Your task to perform on an android device: turn off priority inbox in the gmail app Image 0: 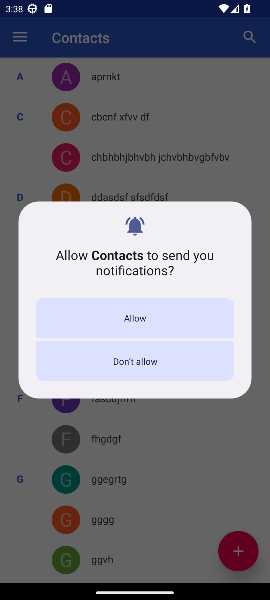
Step 0: press home button
Your task to perform on an android device: turn off priority inbox in the gmail app Image 1: 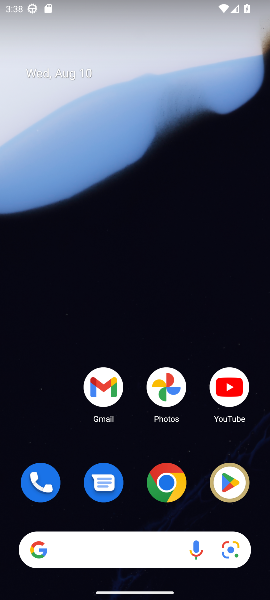
Step 1: drag from (132, 489) to (185, 99)
Your task to perform on an android device: turn off priority inbox in the gmail app Image 2: 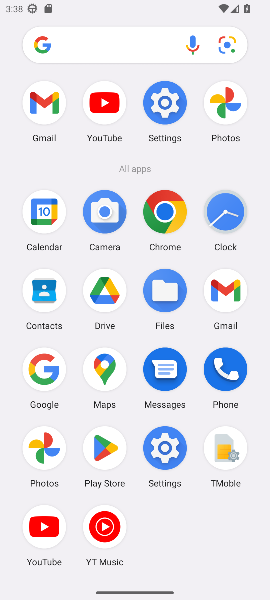
Step 2: click (45, 97)
Your task to perform on an android device: turn off priority inbox in the gmail app Image 3: 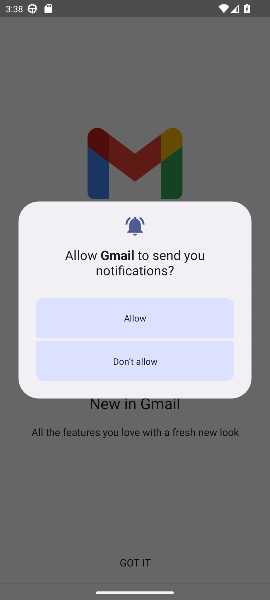
Step 3: click (200, 317)
Your task to perform on an android device: turn off priority inbox in the gmail app Image 4: 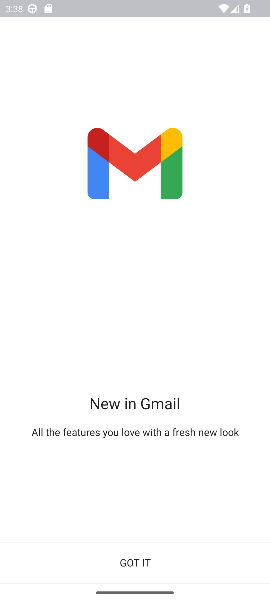
Step 4: click (141, 551)
Your task to perform on an android device: turn off priority inbox in the gmail app Image 5: 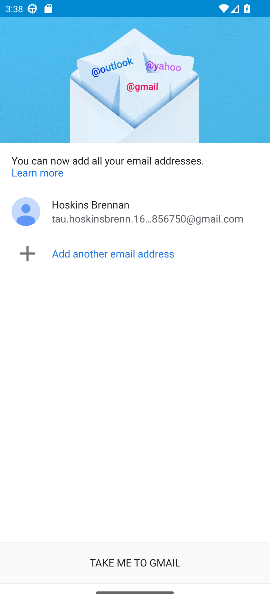
Step 5: click (141, 551)
Your task to perform on an android device: turn off priority inbox in the gmail app Image 6: 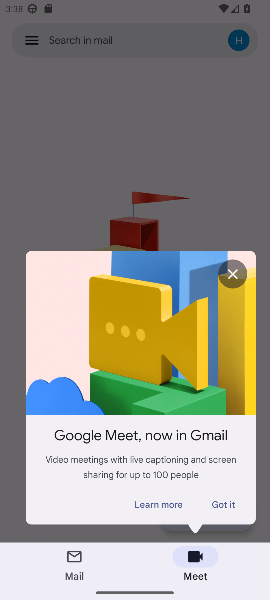
Step 6: click (239, 280)
Your task to perform on an android device: turn off priority inbox in the gmail app Image 7: 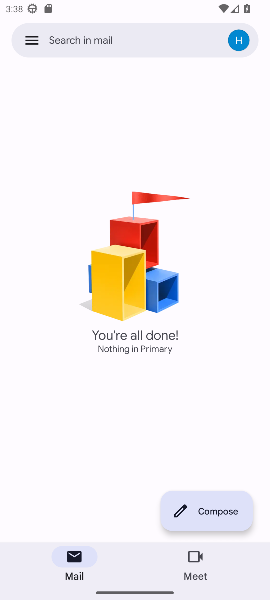
Step 7: click (35, 37)
Your task to perform on an android device: turn off priority inbox in the gmail app Image 8: 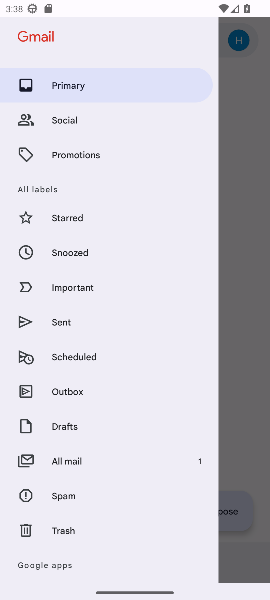
Step 8: drag from (112, 480) to (81, 55)
Your task to perform on an android device: turn off priority inbox in the gmail app Image 9: 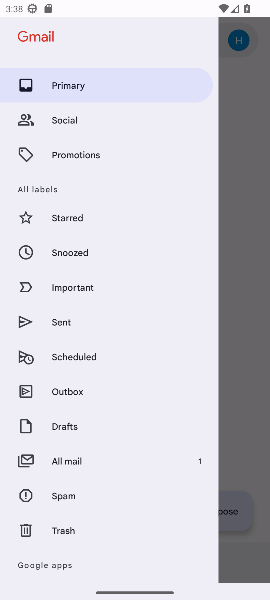
Step 9: drag from (146, 528) to (123, 24)
Your task to perform on an android device: turn off priority inbox in the gmail app Image 10: 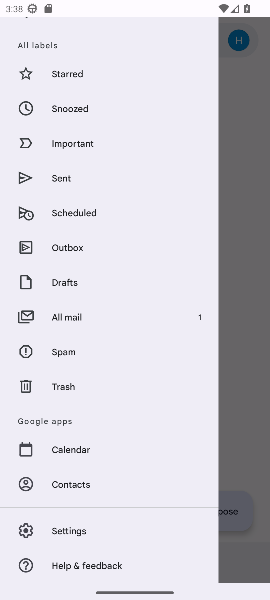
Step 10: click (68, 531)
Your task to perform on an android device: turn off priority inbox in the gmail app Image 11: 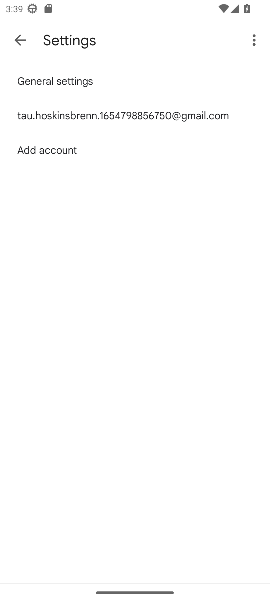
Step 11: click (113, 110)
Your task to perform on an android device: turn off priority inbox in the gmail app Image 12: 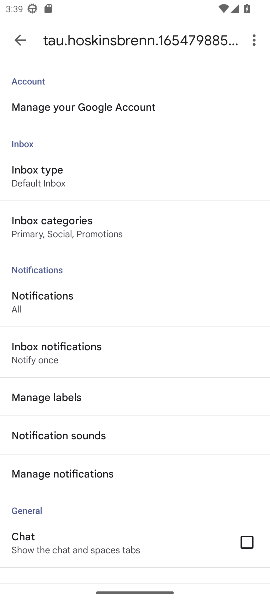
Step 12: click (52, 178)
Your task to perform on an android device: turn off priority inbox in the gmail app Image 13: 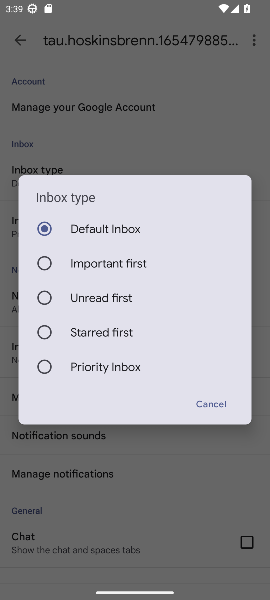
Step 13: click (132, 365)
Your task to perform on an android device: turn off priority inbox in the gmail app Image 14: 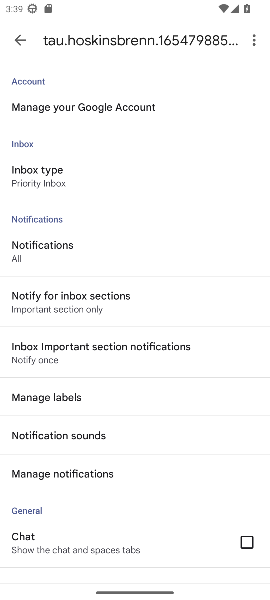
Step 14: task complete